Your task to perform on an android device: Turn on the flashlight Image 0: 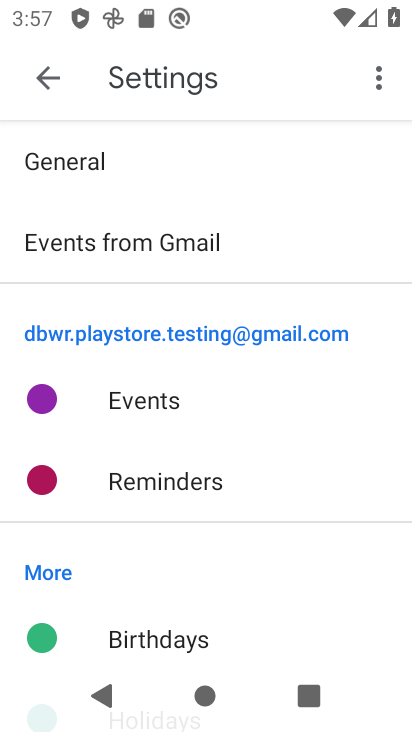
Step 0: press back button
Your task to perform on an android device: Turn on the flashlight Image 1: 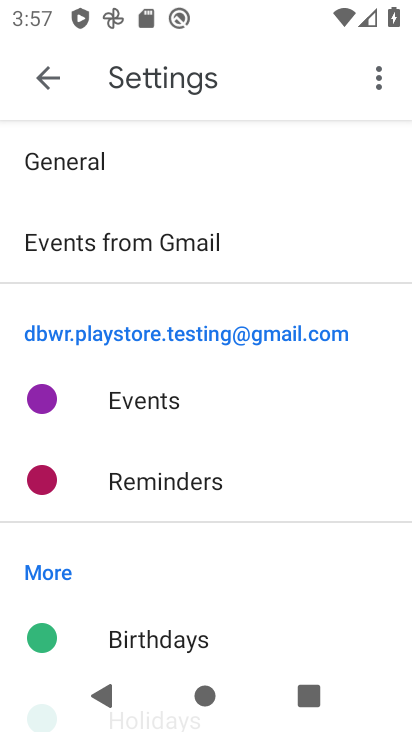
Step 1: press home button
Your task to perform on an android device: Turn on the flashlight Image 2: 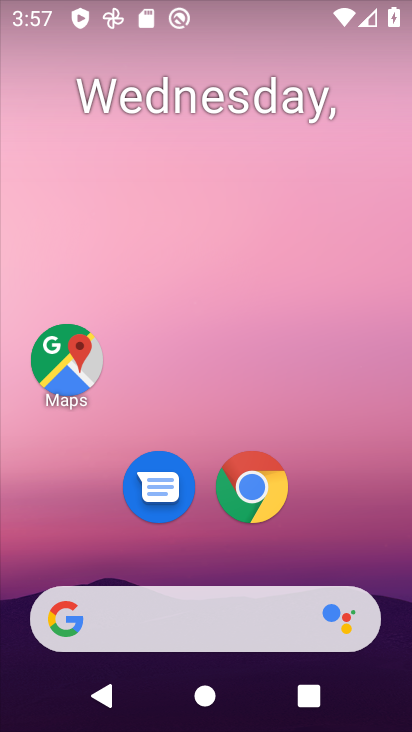
Step 2: drag from (244, 4) to (231, 393)
Your task to perform on an android device: Turn on the flashlight Image 3: 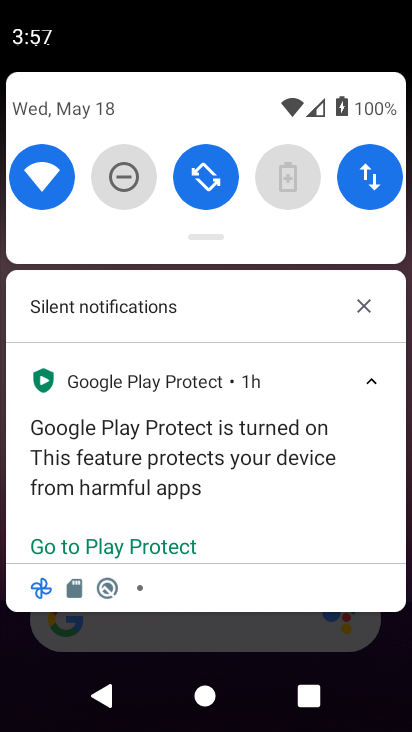
Step 3: drag from (252, 103) to (231, 343)
Your task to perform on an android device: Turn on the flashlight Image 4: 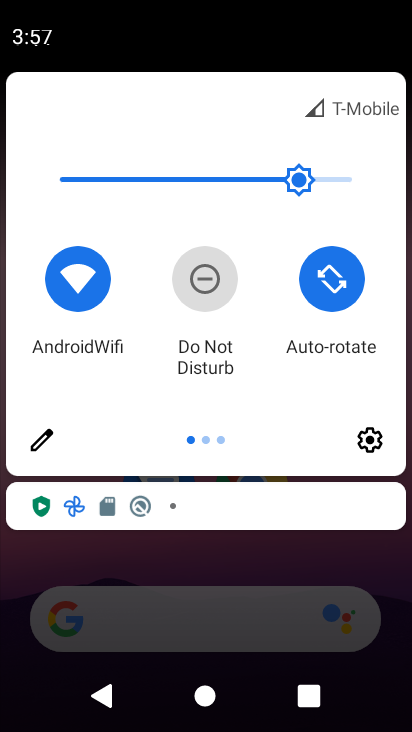
Step 4: click (40, 444)
Your task to perform on an android device: Turn on the flashlight Image 5: 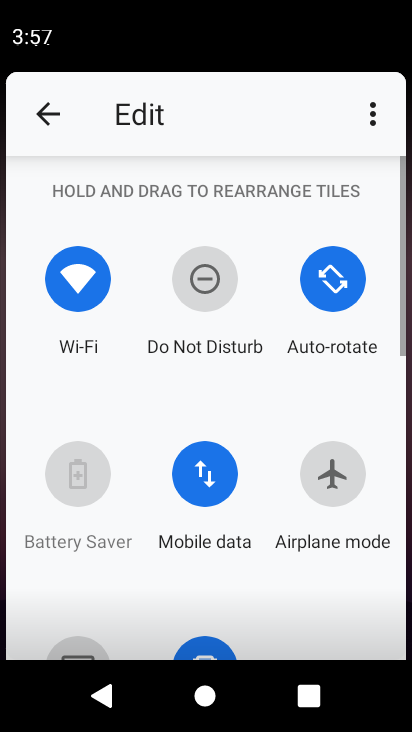
Step 5: task complete